Your task to perform on an android device: When is my next meeting? Image 0: 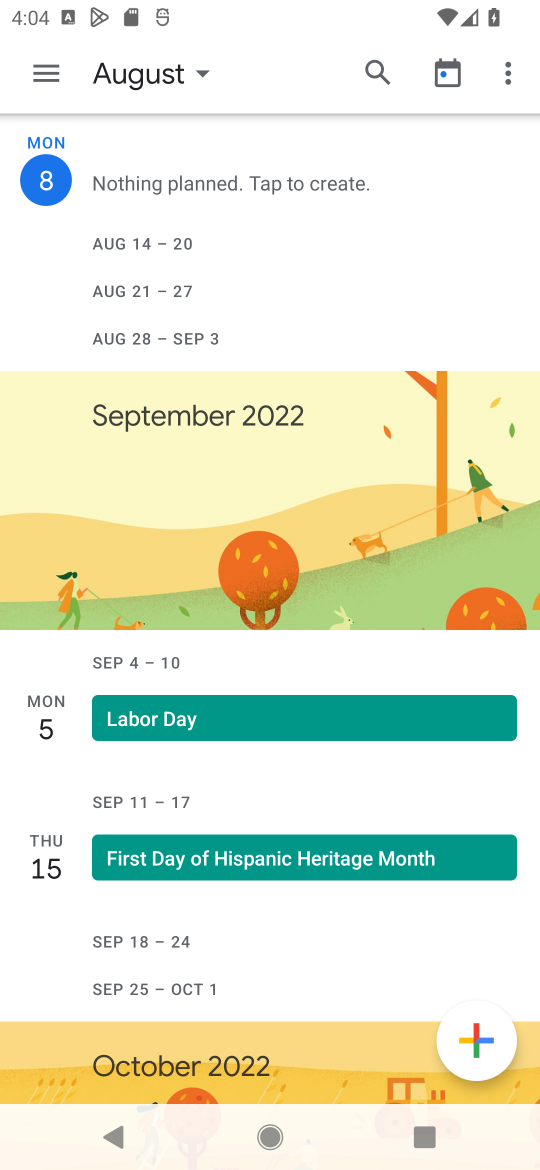
Step 0: click (45, 84)
Your task to perform on an android device: When is my next meeting? Image 1: 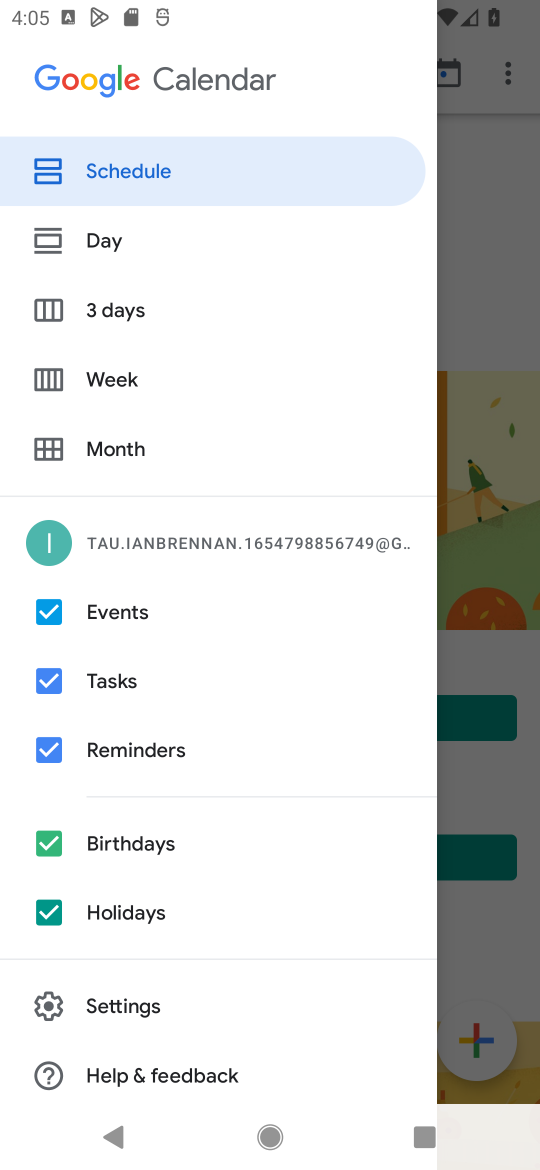
Step 1: click (84, 182)
Your task to perform on an android device: When is my next meeting? Image 2: 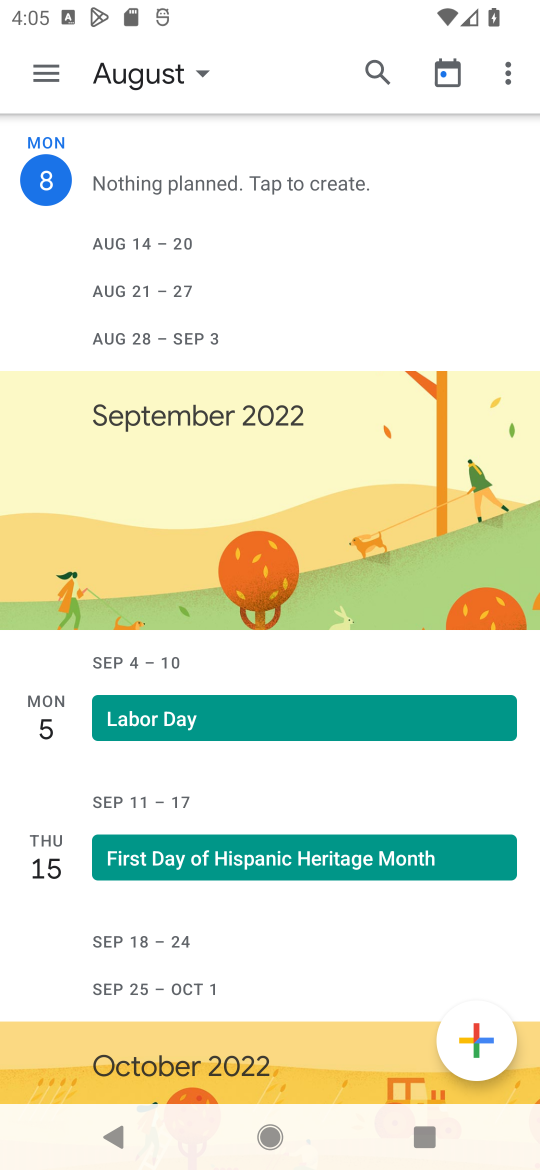
Step 2: task complete